Your task to perform on an android device: Open sound settings Image 0: 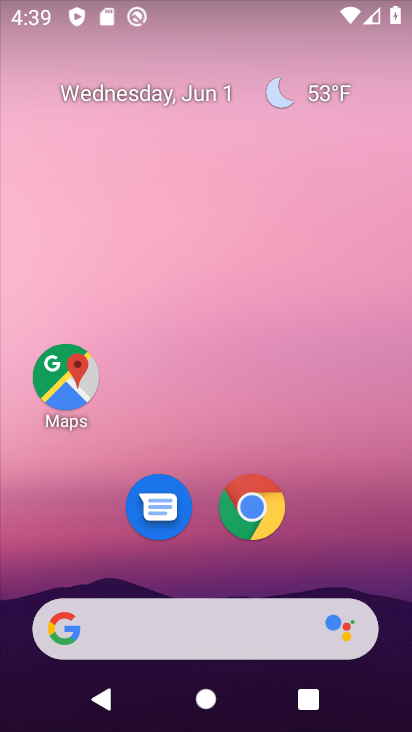
Step 0: drag from (329, 533) to (244, 32)
Your task to perform on an android device: Open sound settings Image 1: 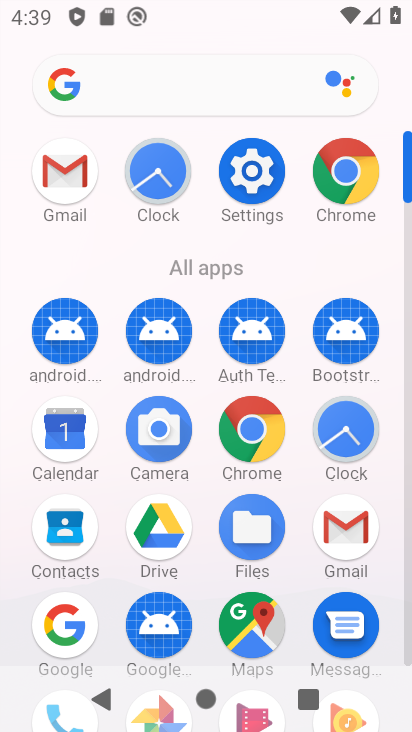
Step 1: click (257, 174)
Your task to perform on an android device: Open sound settings Image 2: 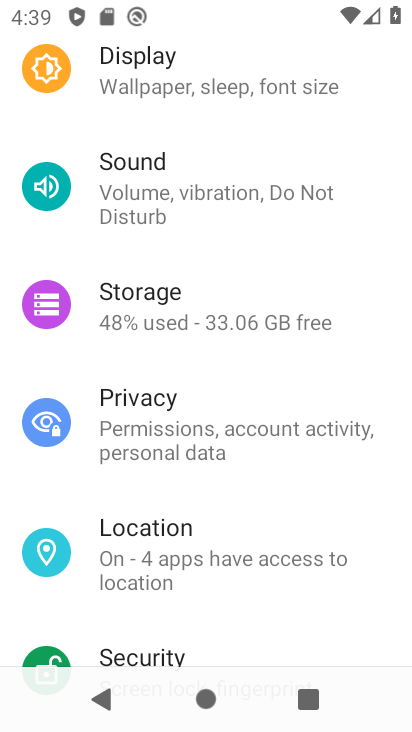
Step 2: click (216, 192)
Your task to perform on an android device: Open sound settings Image 3: 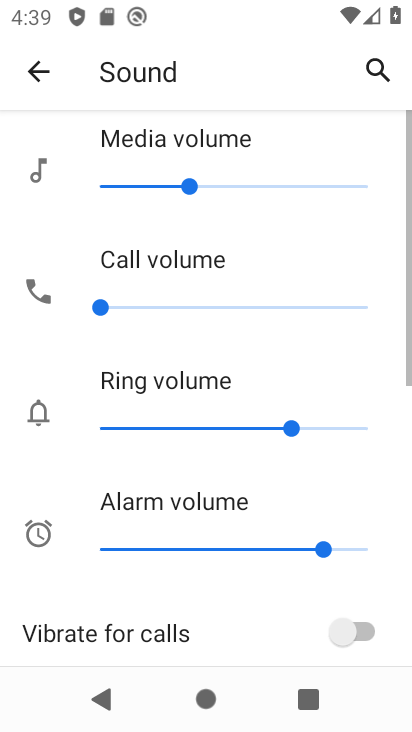
Step 3: task complete